Your task to perform on an android device: Play the latest video from the Huffington Post Image 0: 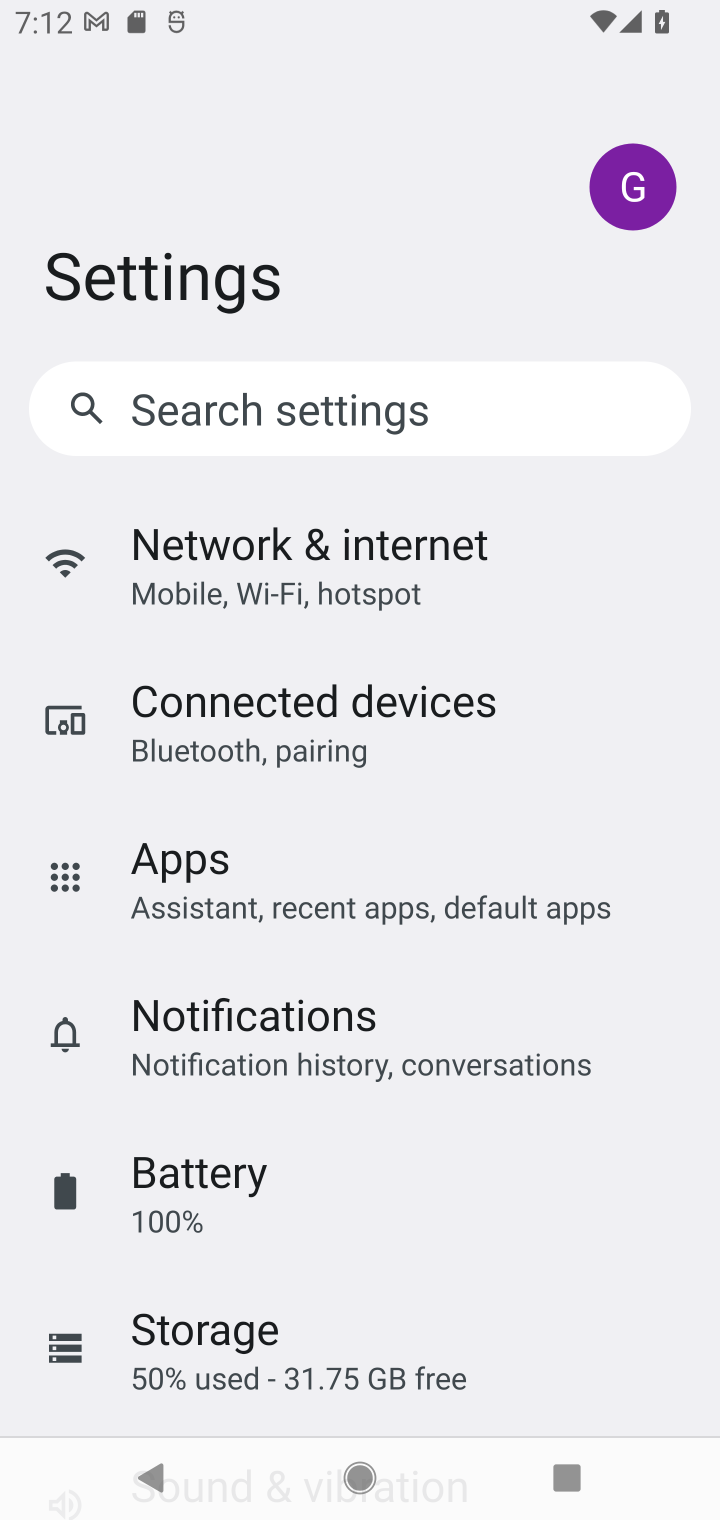
Step 0: press home button
Your task to perform on an android device: Play the latest video from the Huffington Post Image 1: 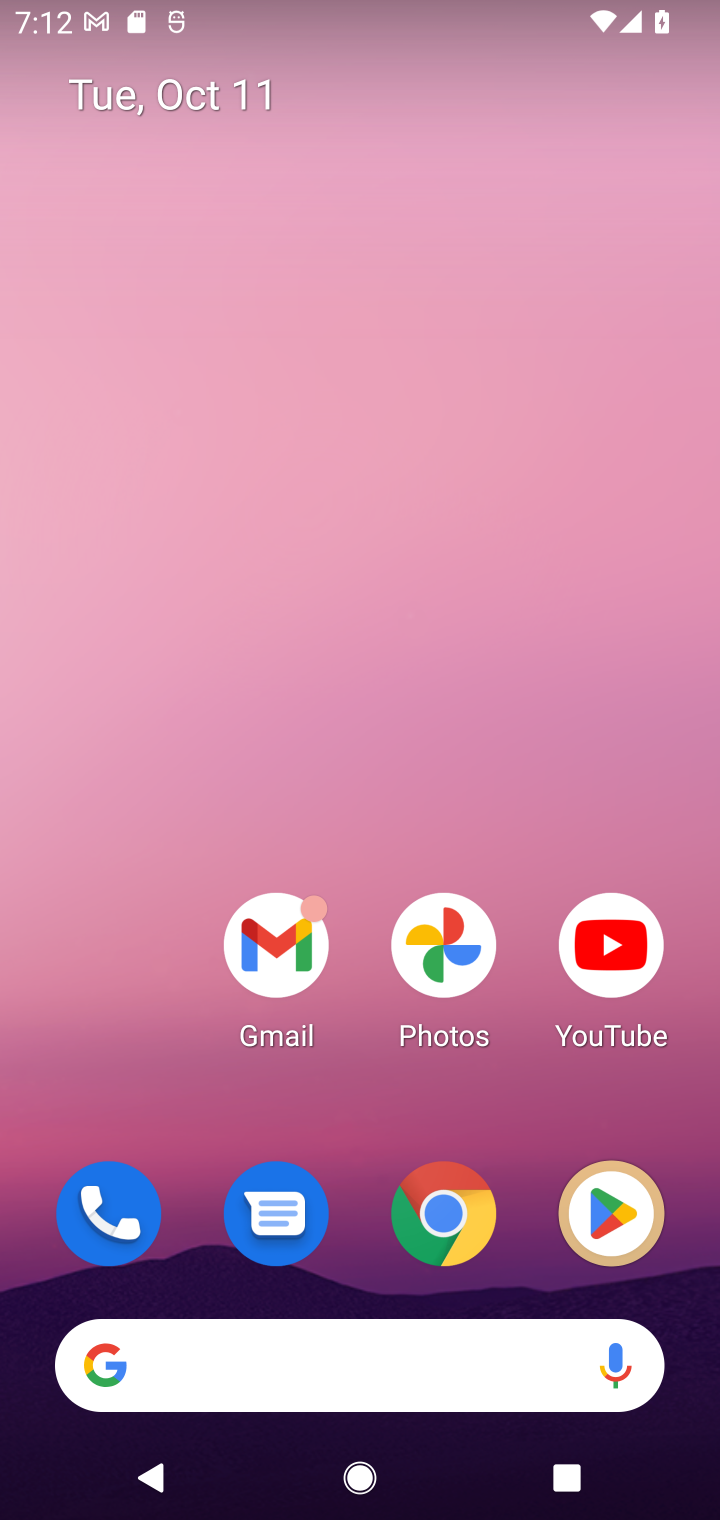
Step 1: drag from (268, 1346) to (310, 401)
Your task to perform on an android device: Play the latest video from the Huffington Post Image 2: 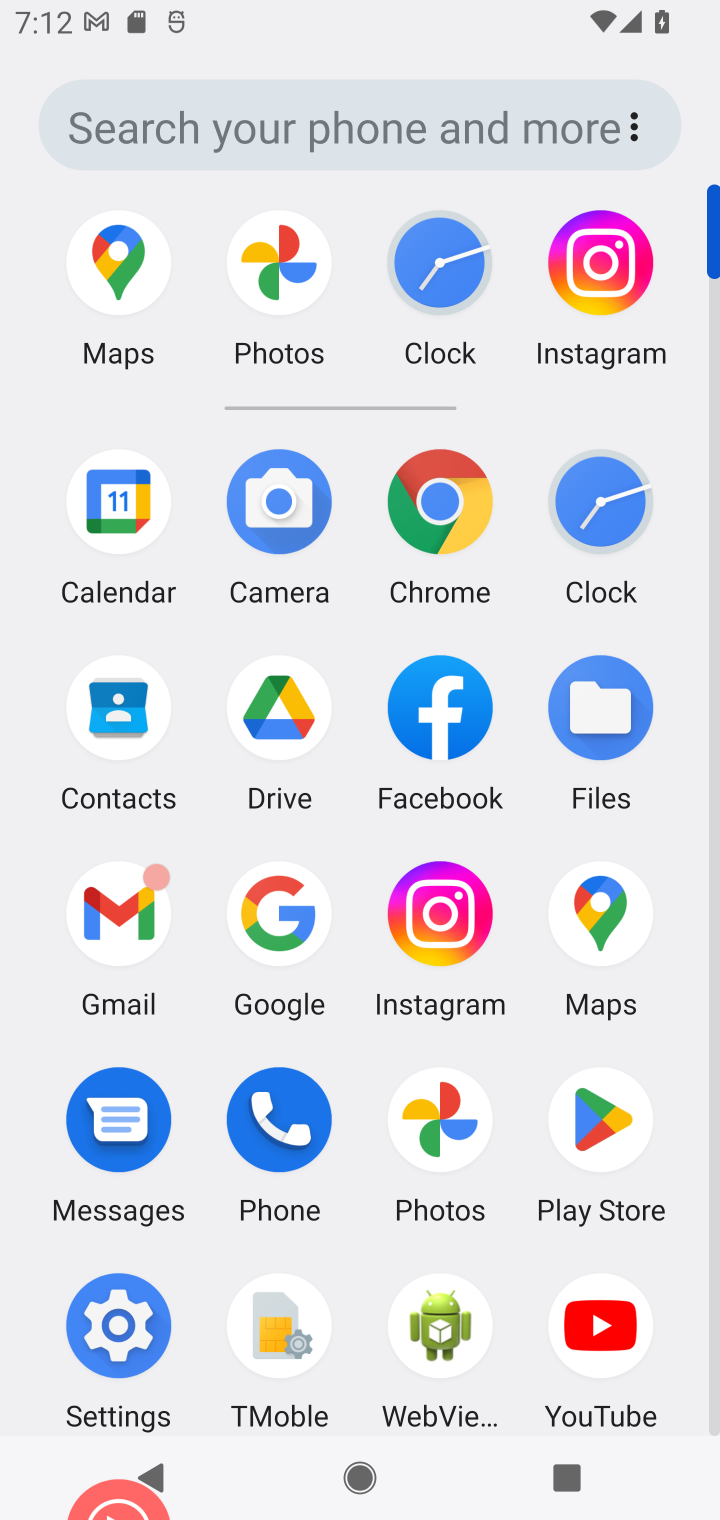
Step 2: click (281, 902)
Your task to perform on an android device: Play the latest video from the Huffington Post Image 3: 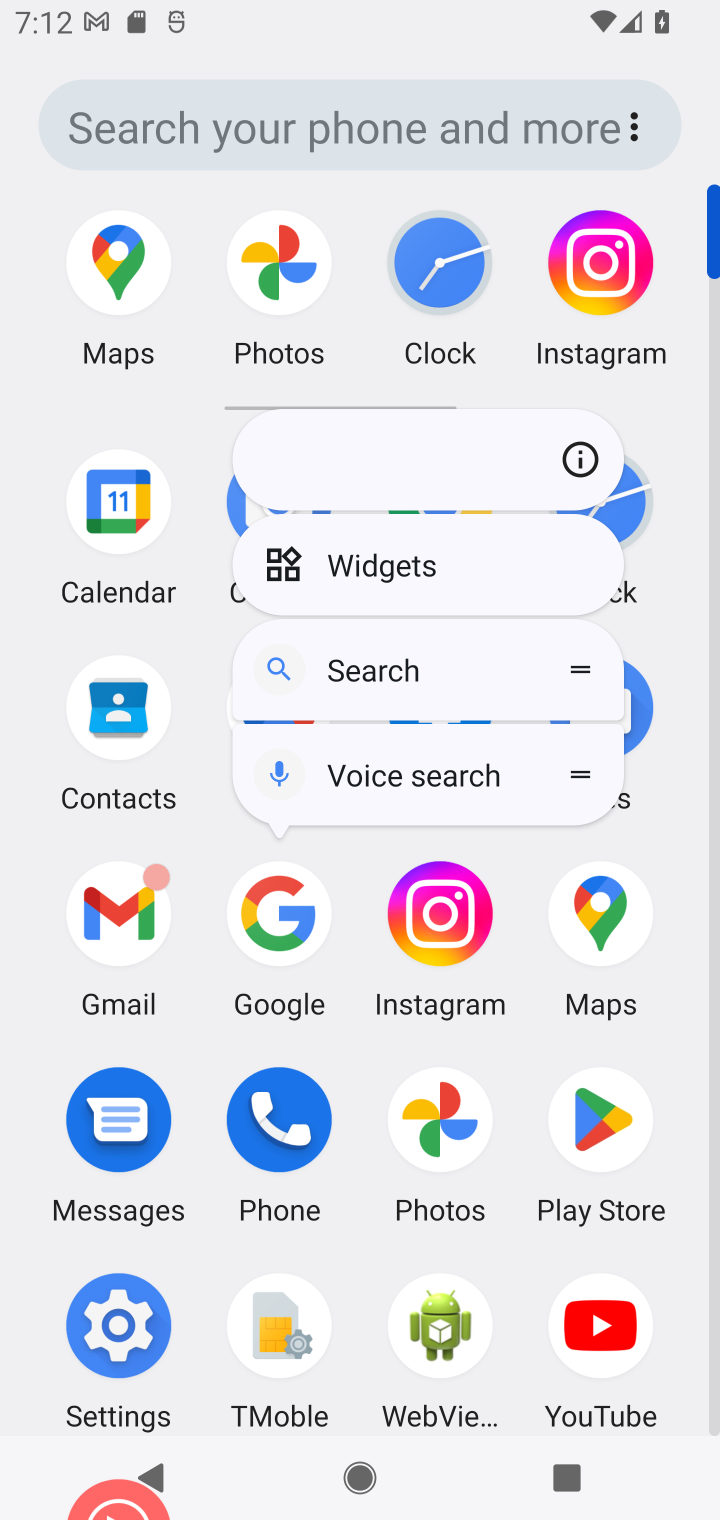
Step 3: click (281, 902)
Your task to perform on an android device: Play the latest video from the Huffington Post Image 4: 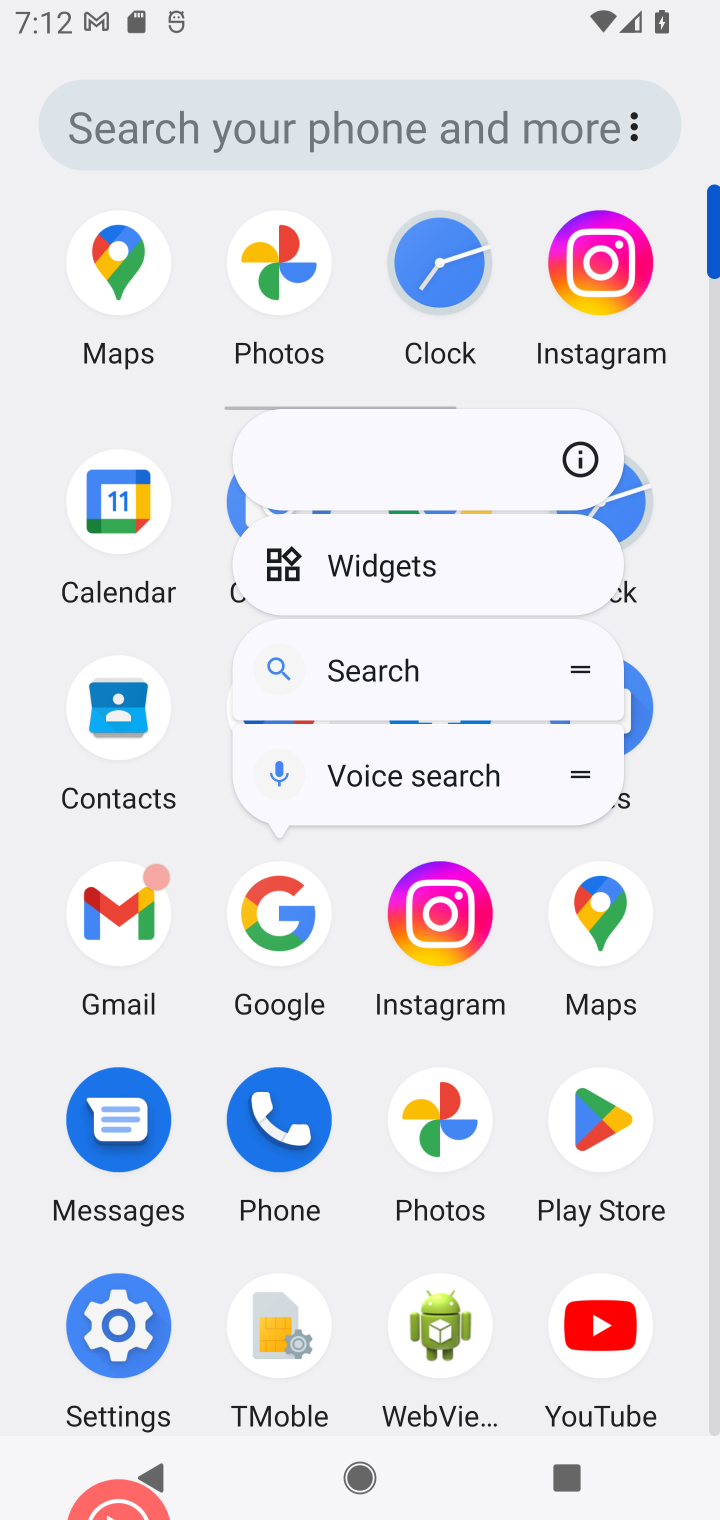
Step 4: click (248, 902)
Your task to perform on an android device: Play the latest video from the Huffington Post Image 5: 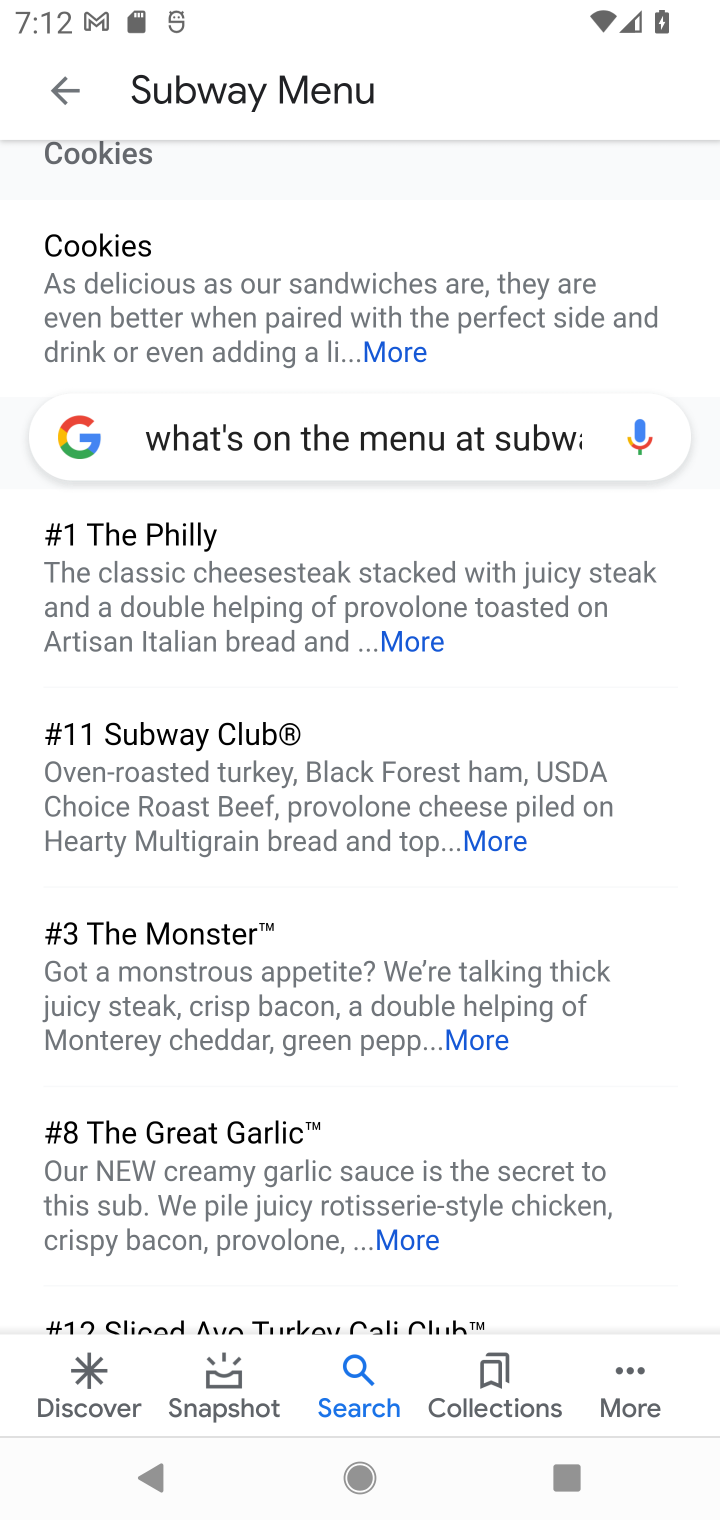
Step 5: click (266, 431)
Your task to perform on an android device: Play the latest video from the Huffington Post Image 6: 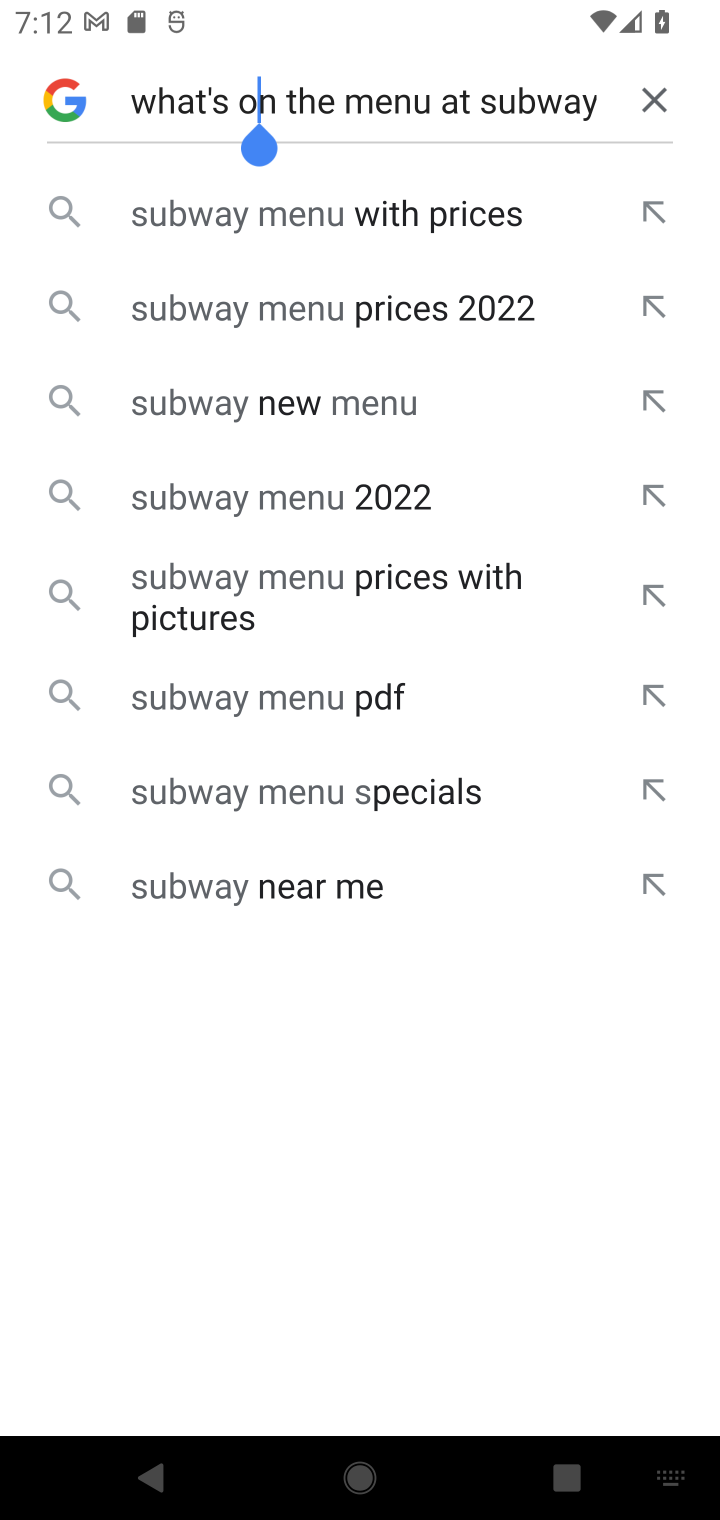
Step 6: click (648, 105)
Your task to perform on an android device: Play the latest video from the Huffington Post Image 7: 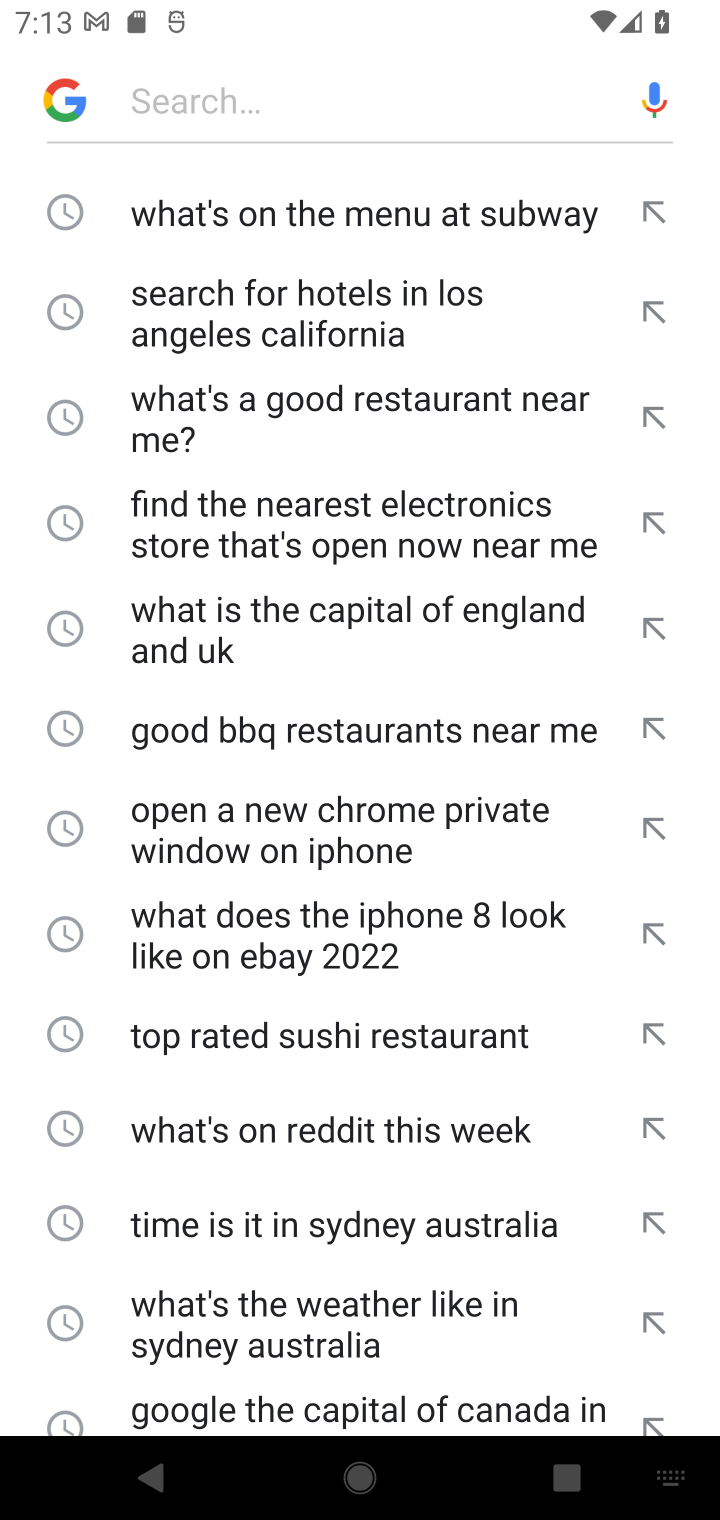
Step 7: click (354, 91)
Your task to perform on an android device: Play the latest video from the Huffington Post Image 8: 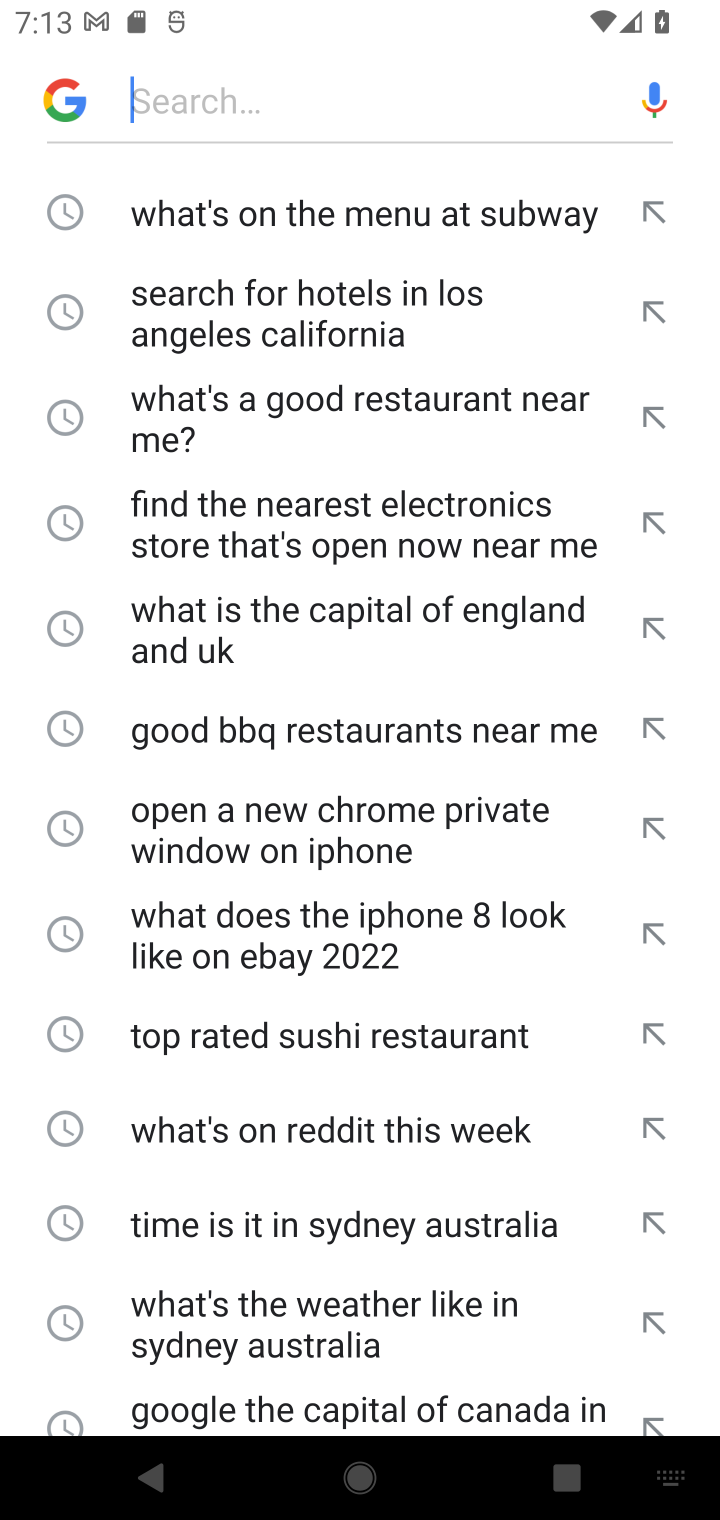
Step 8: type "Play the latest video from the Huffington Post "
Your task to perform on an android device: Play the latest video from the Huffington Post Image 9: 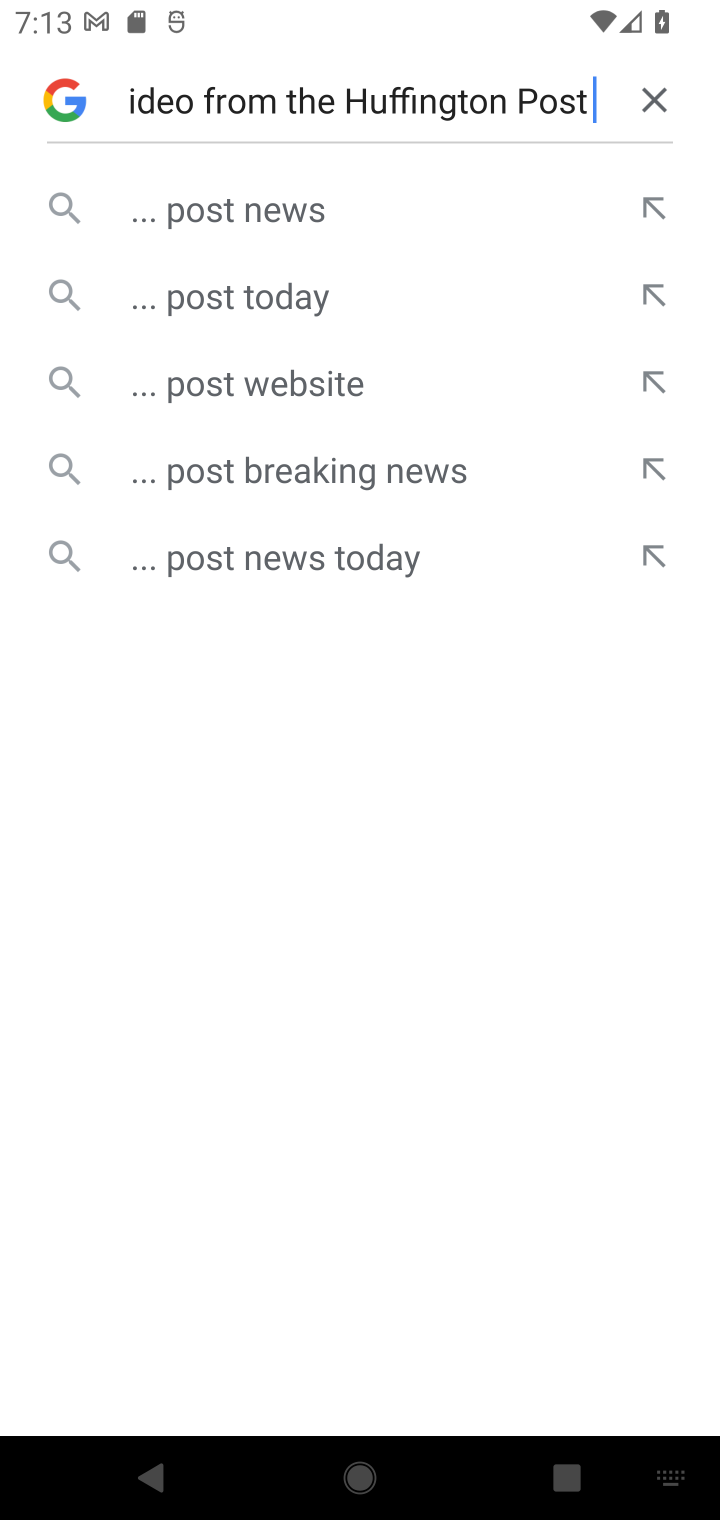
Step 9: click (185, 209)
Your task to perform on an android device: Play the latest video from the Huffington Post Image 10: 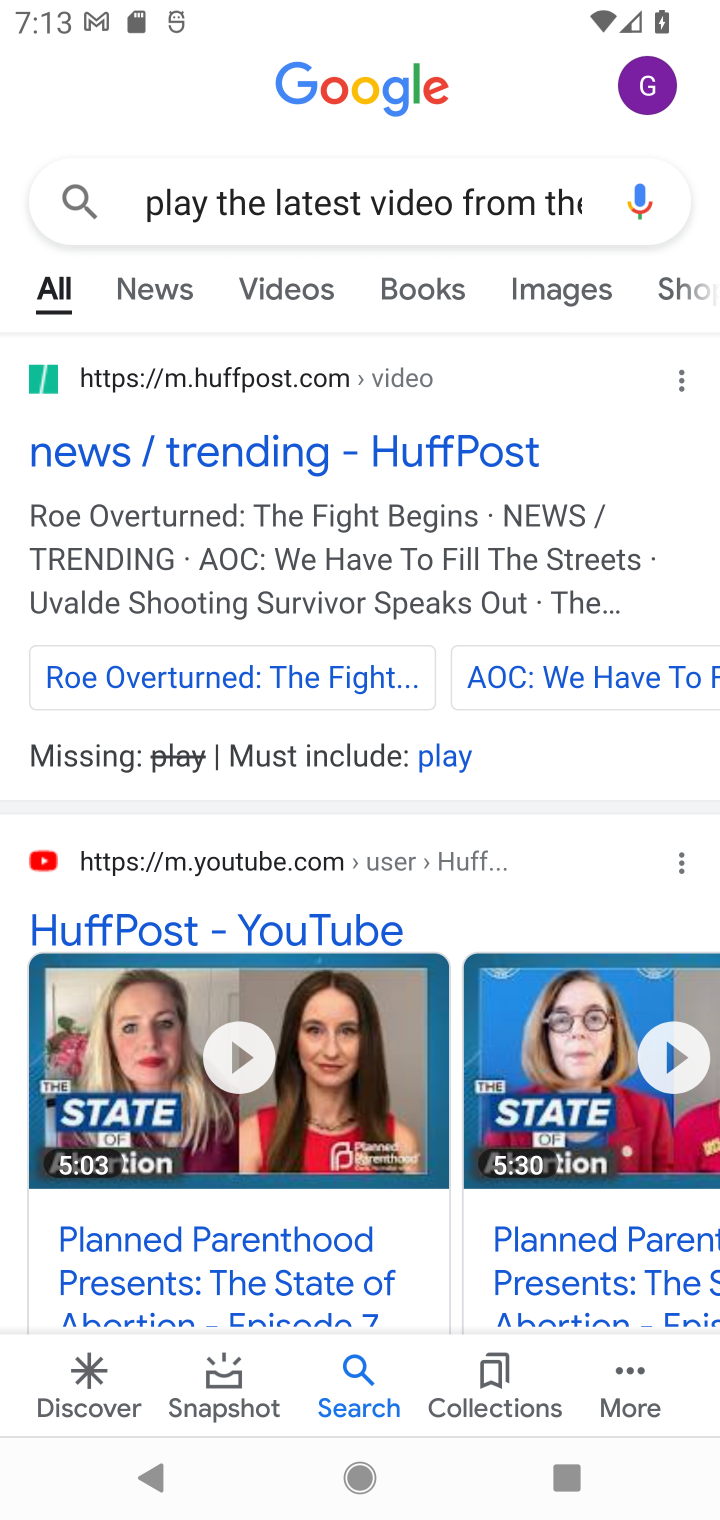
Step 10: click (380, 435)
Your task to perform on an android device: Play the latest video from the Huffington Post Image 11: 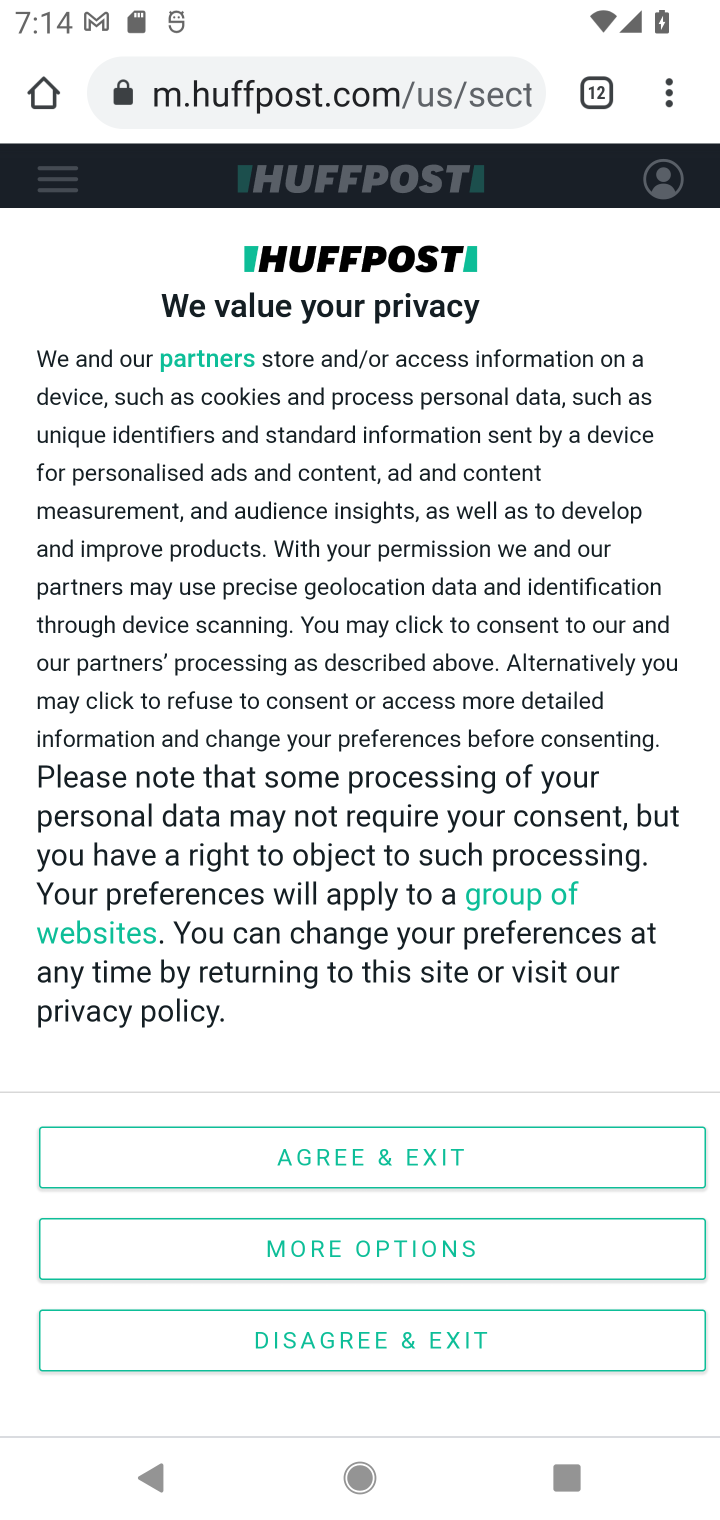
Step 11: task complete